Your task to perform on an android device: Go to ESPN.com Image 0: 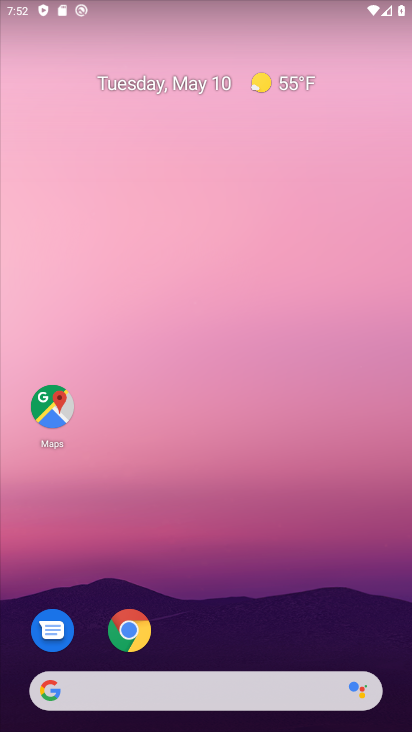
Step 0: drag from (232, 492) to (153, 3)
Your task to perform on an android device: Go to ESPN.com Image 1: 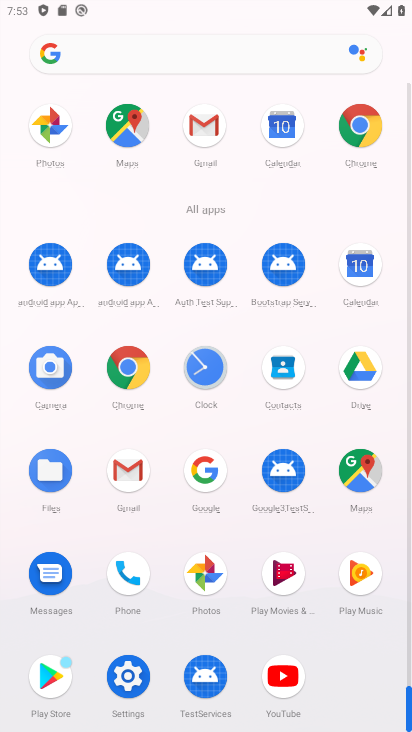
Step 1: click (126, 363)
Your task to perform on an android device: Go to ESPN.com Image 2: 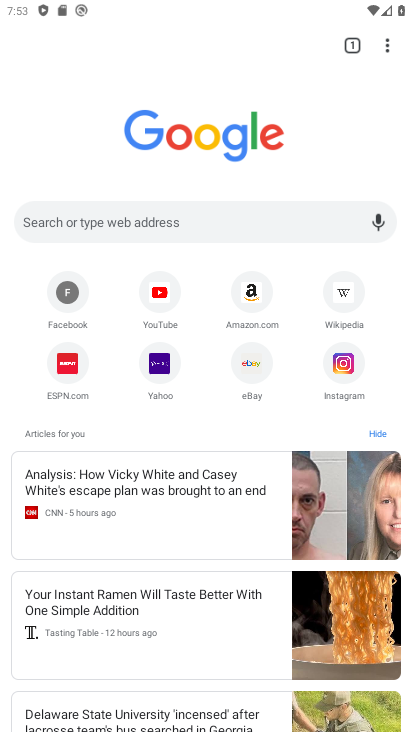
Step 2: click (70, 371)
Your task to perform on an android device: Go to ESPN.com Image 3: 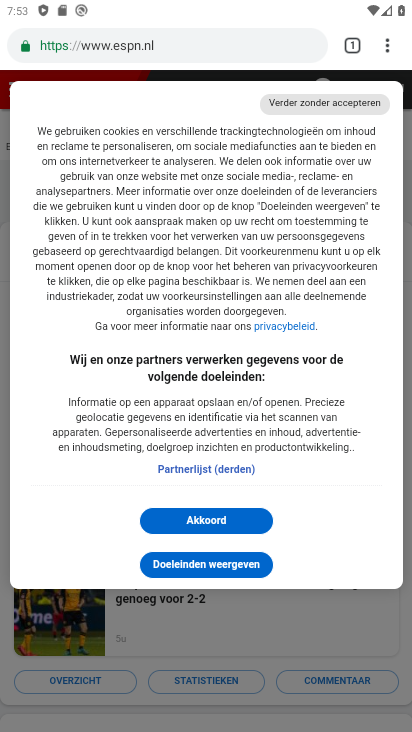
Step 3: click (237, 524)
Your task to perform on an android device: Go to ESPN.com Image 4: 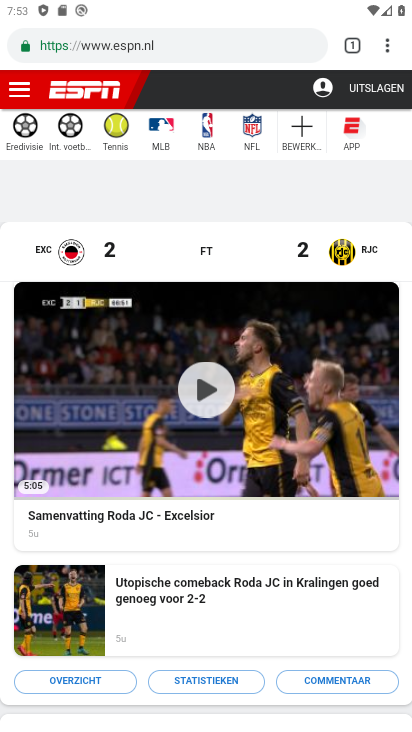
Step 4: task complete